Your task to perform on an android device: Open maps Image 0: 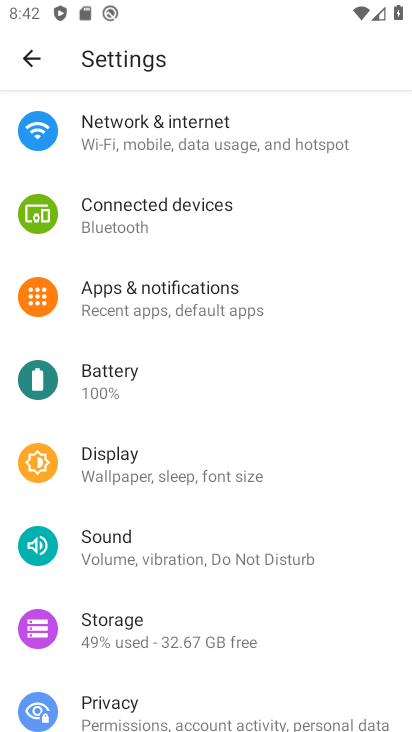
Step 0: press home button
Your task to perform on an android device: Open maps Image 1: 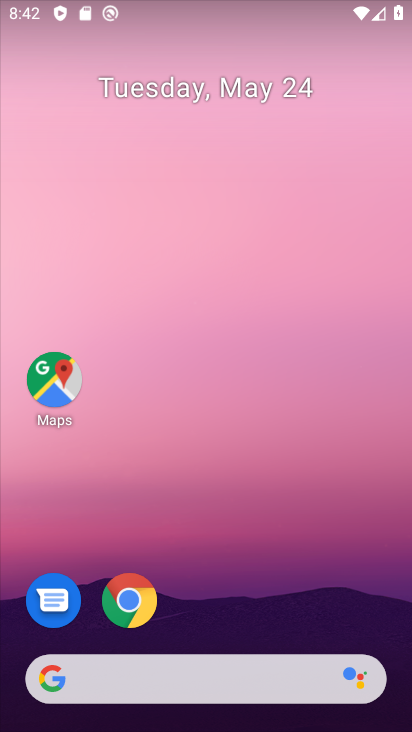
Step 1: click (48, 371)
Your task to perform on an android device: Open maps Image 2: 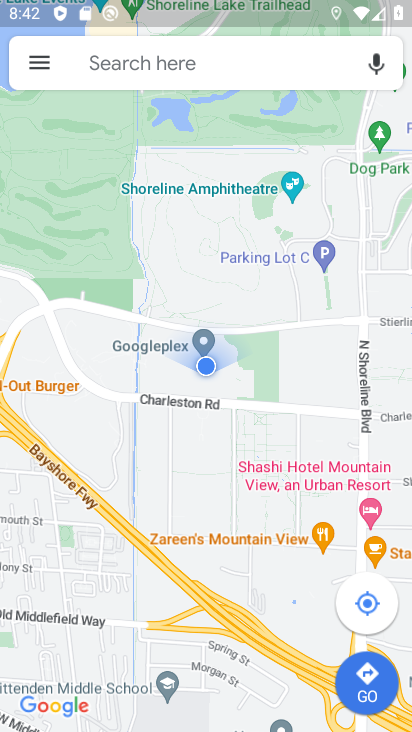
Step 2: task complete